Your task to perform on an android device: Open Google Maps Image 0: 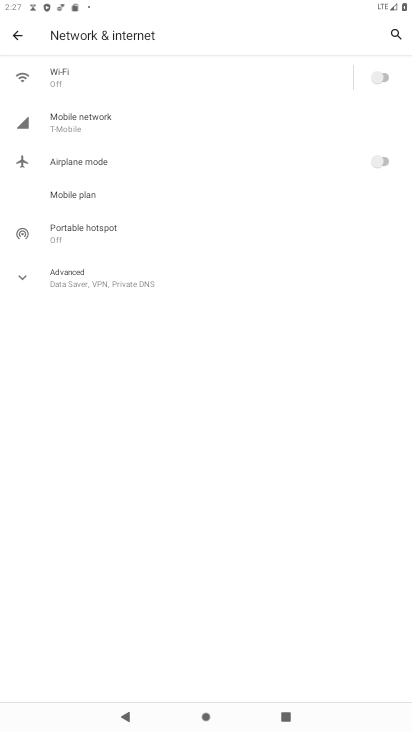
Step 0: press home button
Your task to perform on an android device: Open Google Maps Image 1: 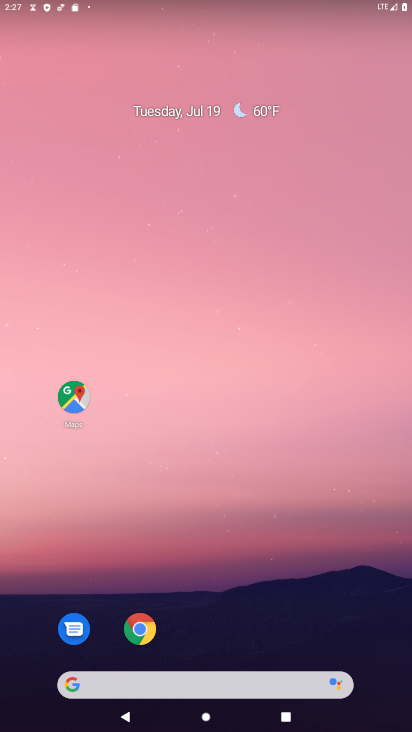
Step 1: click (71, 417)
Your task to perform on an android device: Open Google Maps Image 2: 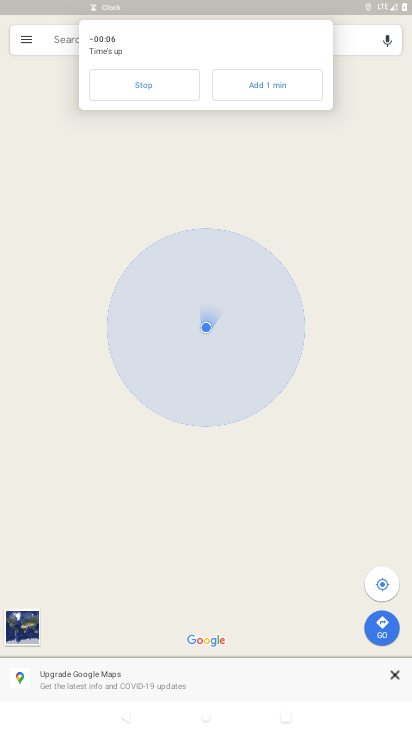
Step 2: click (129, 87)
Your task to perform on an android device: Open Google Maps Image 3: 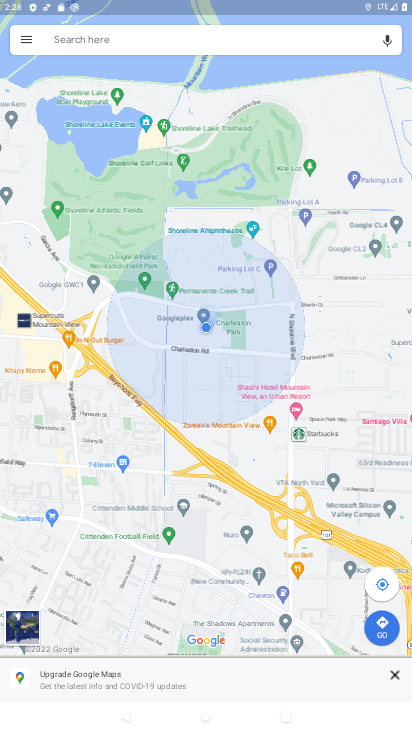
Step 3: task complete